Your task to perform on an android device: clear all cookies in the chrome app Image 0: 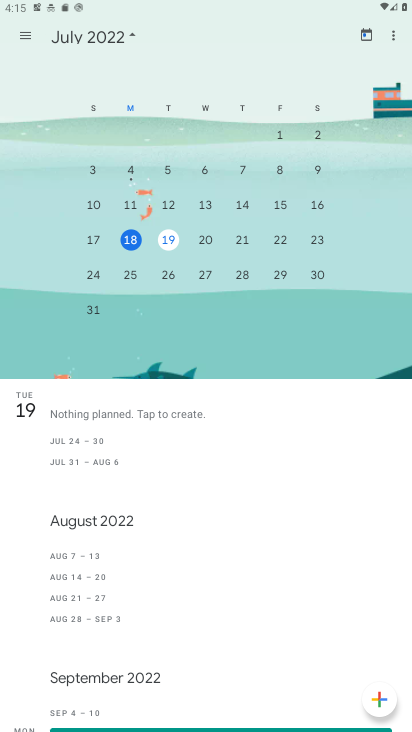
Step 0: press home button
Your task to perform on an android device: clear all cookies in the chrome app Image 1: 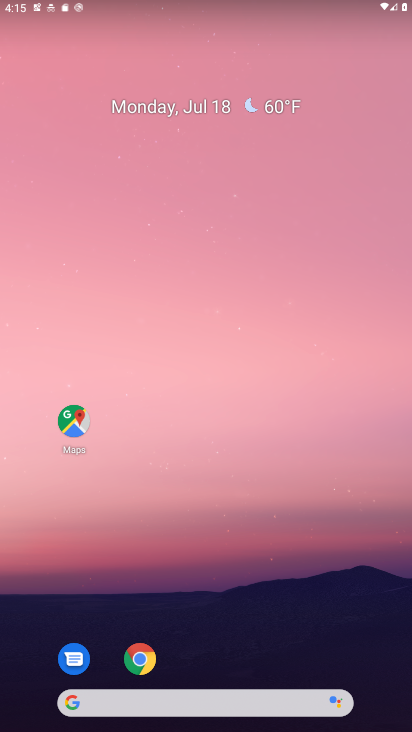
Step 1: drag from (289, 638) to (384, 50)
Your task to perform on an android device: clear all cookies in the chrome app Image 2: 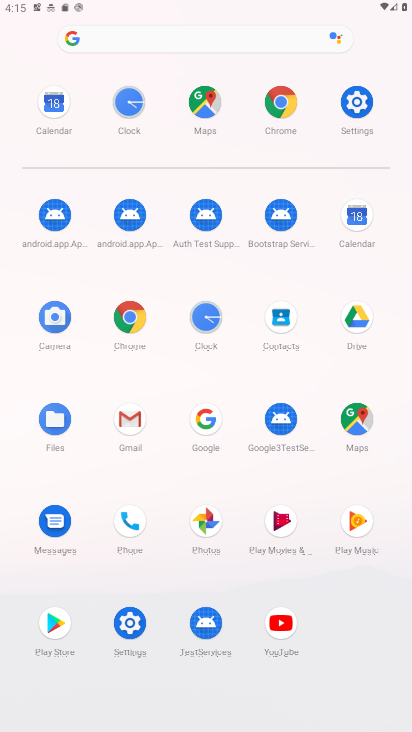
Step 2: click (129, 318)
Your task to perform on an android device: clear all cookies in the chrome app Image 3: 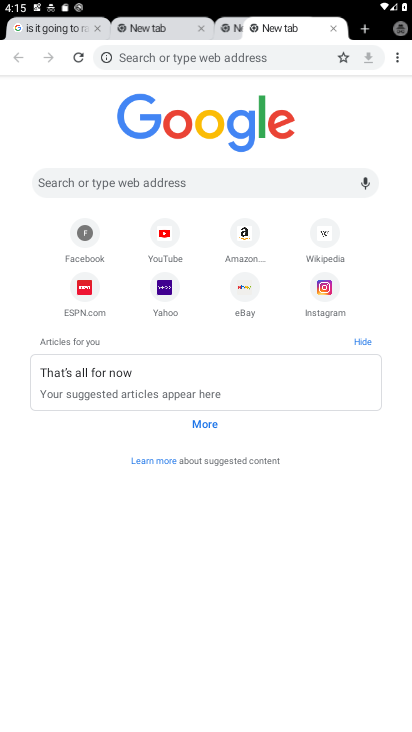
Step 3: drag from (397, 56) to (298, 272)
Your task to perform on an android device: clear all cookies in the chrome app Image 4: 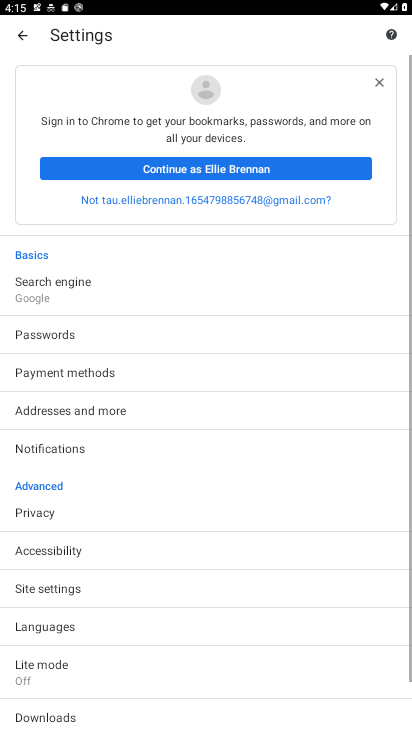
Step 4: click (97, 523)
Your task to perform on an android device: clear all cookies in the chrome app Image 5: 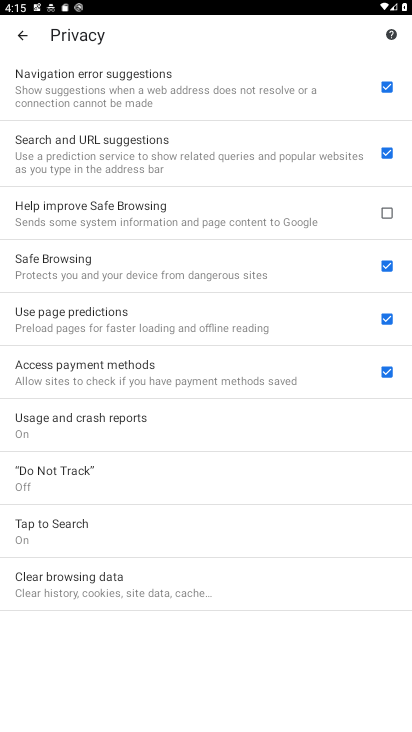
Step 5: click (162, 583)
Your task to perform on an android device: clear all cookies in the chrome app Image 6: 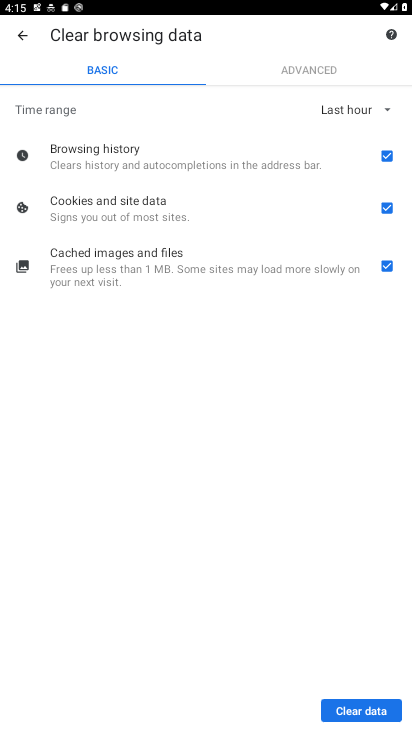
Step 6: click (353, 711)
Your task to perform on an android device: clear all cookies in the chrome app Image 7: 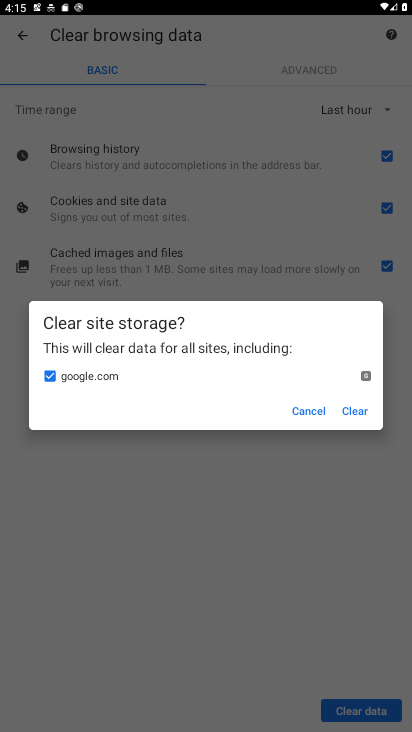
Step 7: click (348, 411)
Your task to perform on an android device: clear all cookies in the chrome app Image 8: 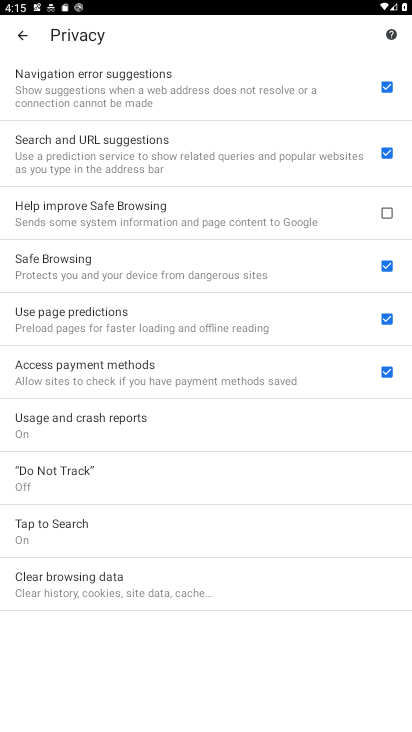
Step 8: task complete